Your task to perform on an android device: Who is the prime minister of Canada? Image 0: 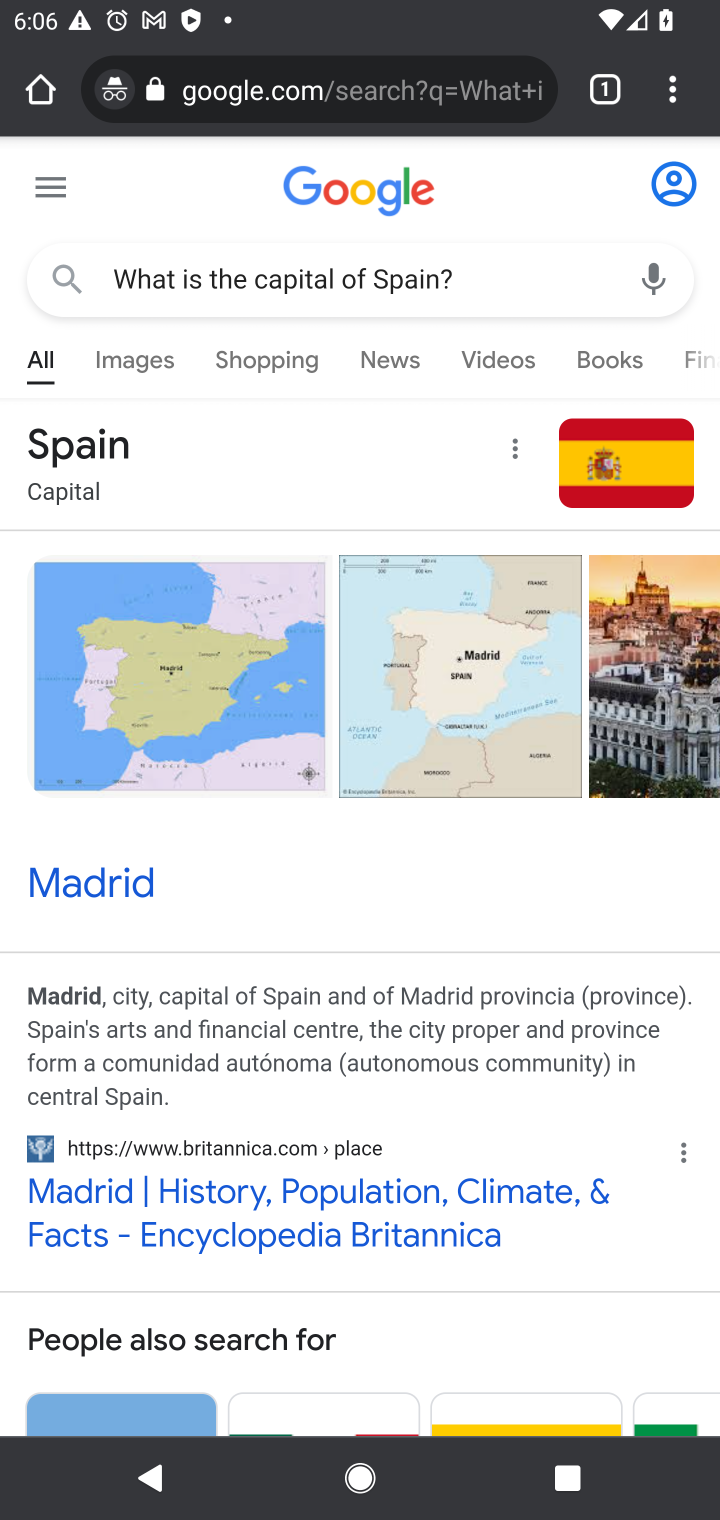
Step 0: click (472, 262)
Your task to perform on an android device: Who is the prime minister of Canada? Image 1: 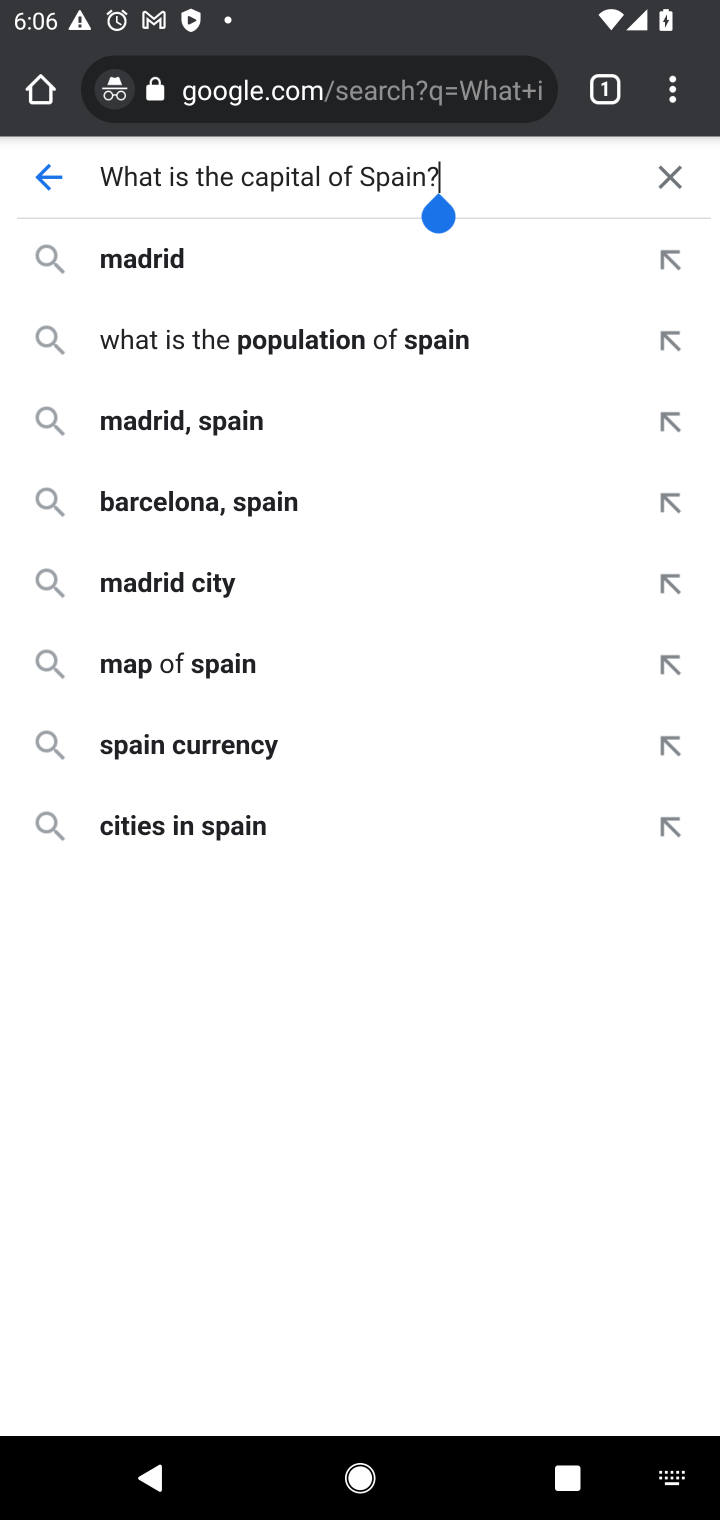
Step 1: click (683, 172)
Your task to perform on an android device: Who is the prime minister of Canada? Image 2: 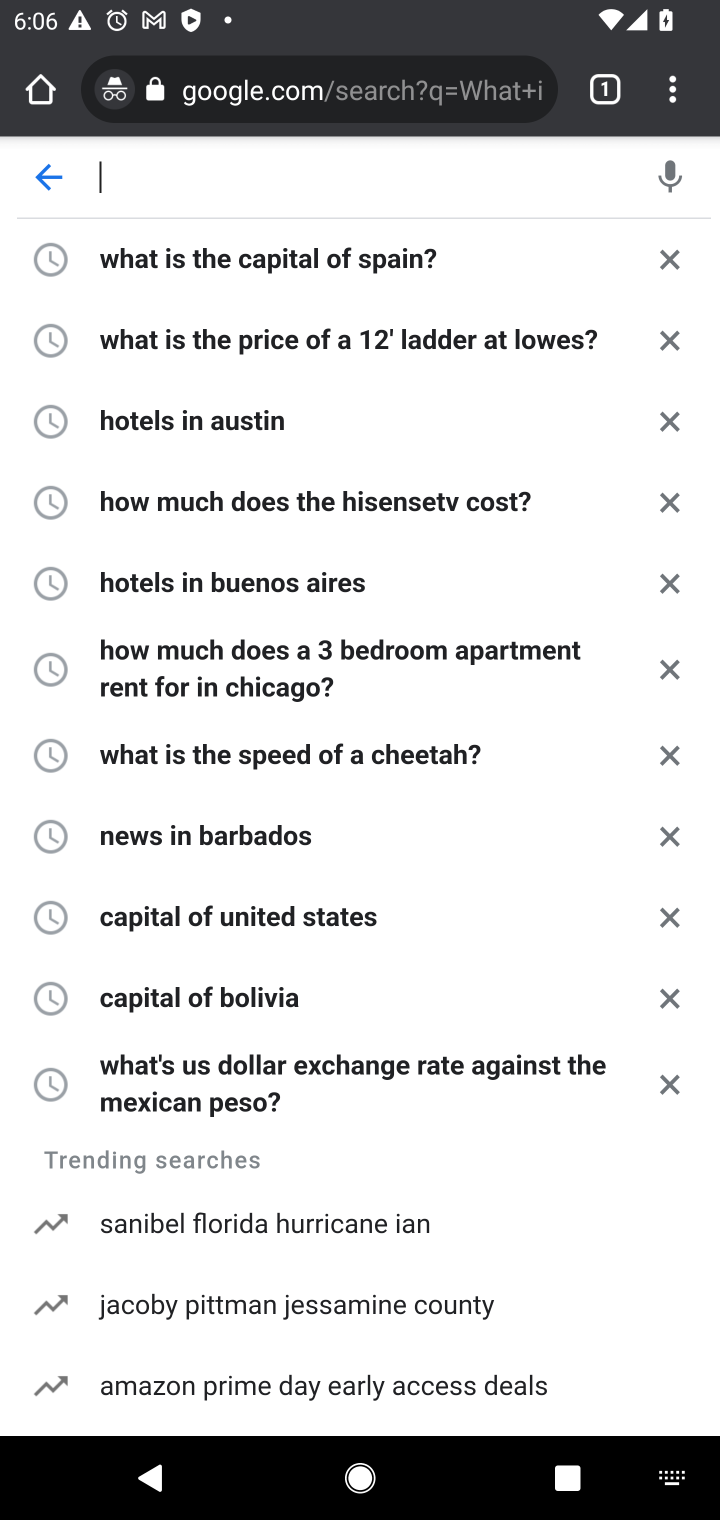
Step 2: type "Who is the prime minister of Canada?"
Your task to perform on an android device: Who is the prime minister of Canada? Image 3: 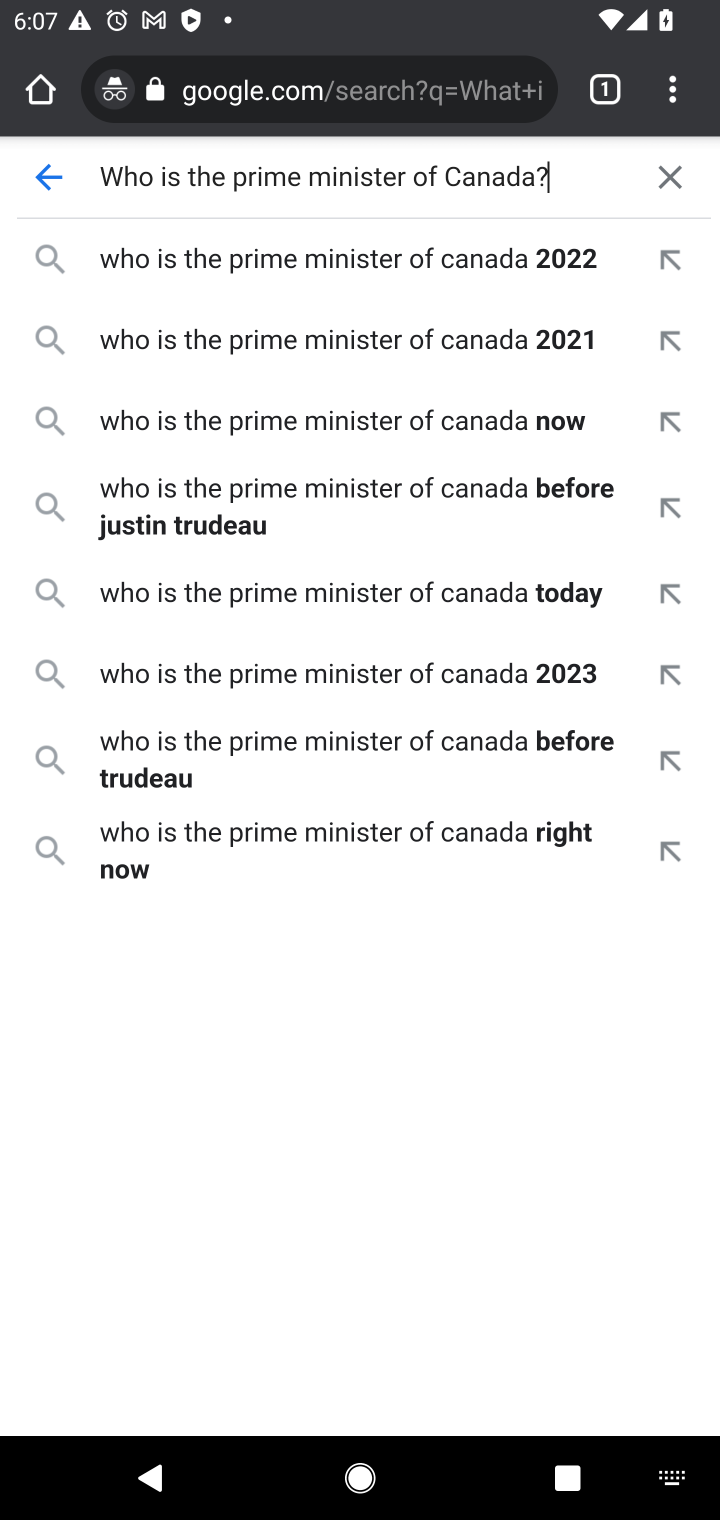
Step 3: press enter
Your task to perform on an android device: Who is the prime minister of Canada? Image 4: 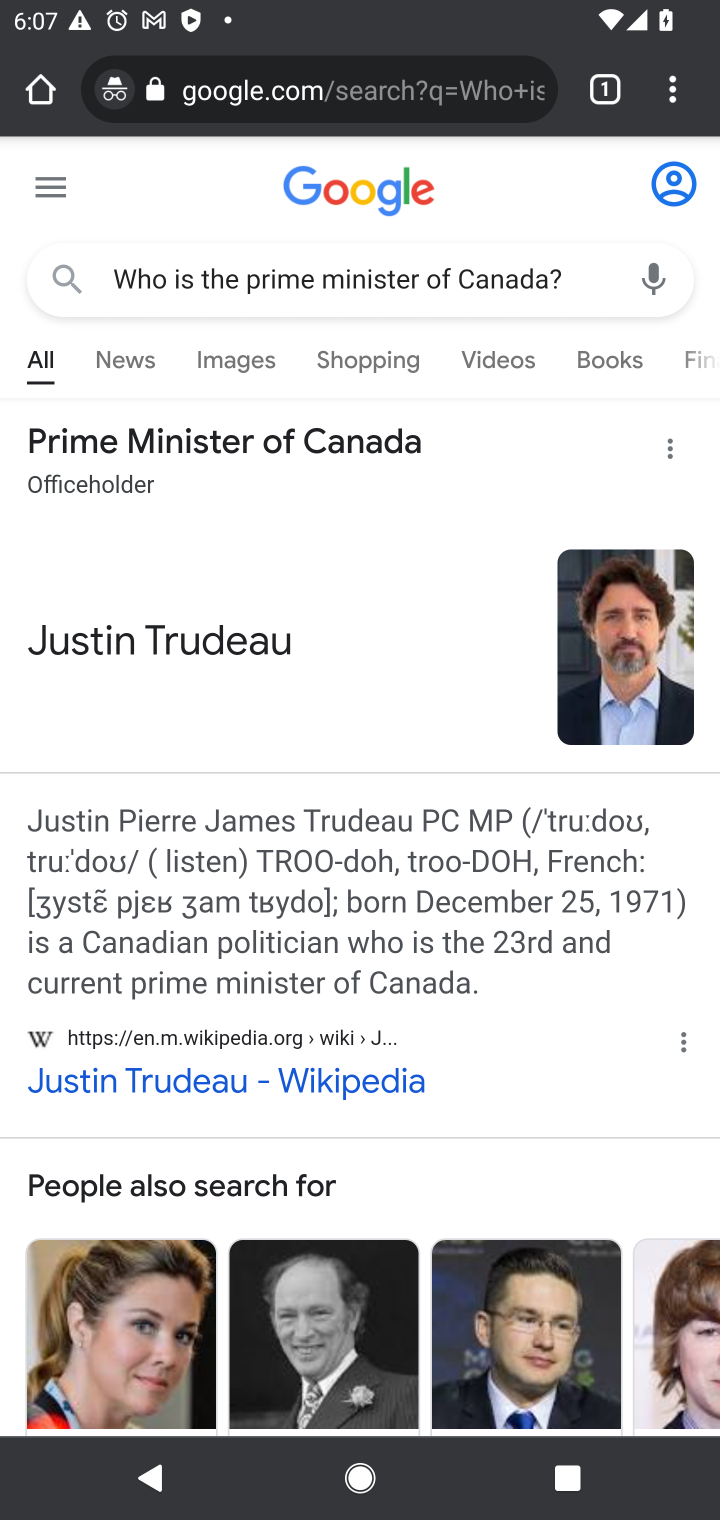
Step 4: task complete